Your task to perform on an android device: choose inbox layout in the gmail app Image 0: 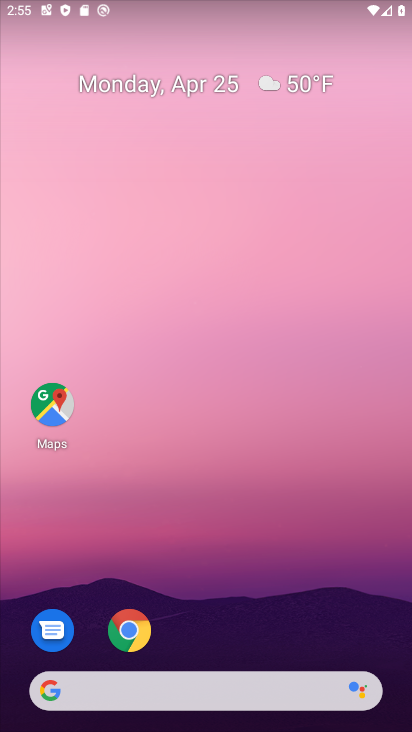
Step 0: drag from (226, 650) to (146, 96)
Your task to perform on an android device: choose inbox layout in the gmail app Image 1: 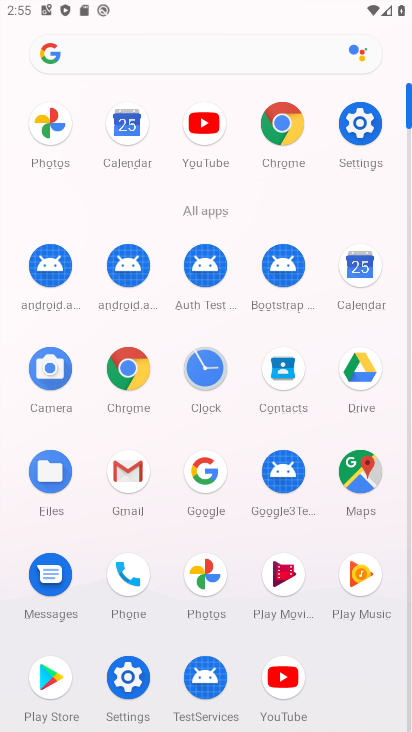
Step 1: click (120, 477)
Your task to perform on an android device: choose inbox layout in the gmail app Image 2: 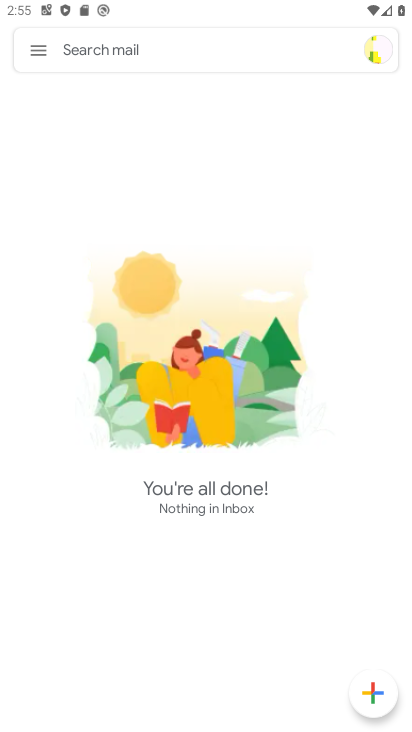
Step 2: click (39, 47)
Your task to perform on an android device: choose inbox layout in the gmail app Image 3: 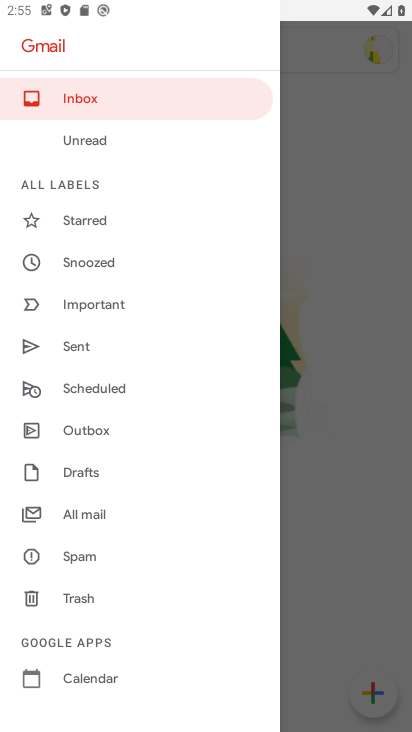
Step 3: task complete